Your task to perform on an android device: Toggle the flashlight Image 0: 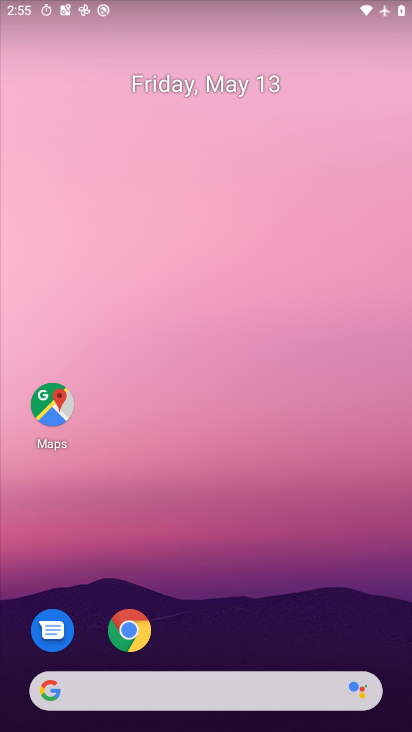
Step 0: drag from (282, 532) to (298, 255)
Your task to perform on an android device: Toggle the flashlight Image 1: 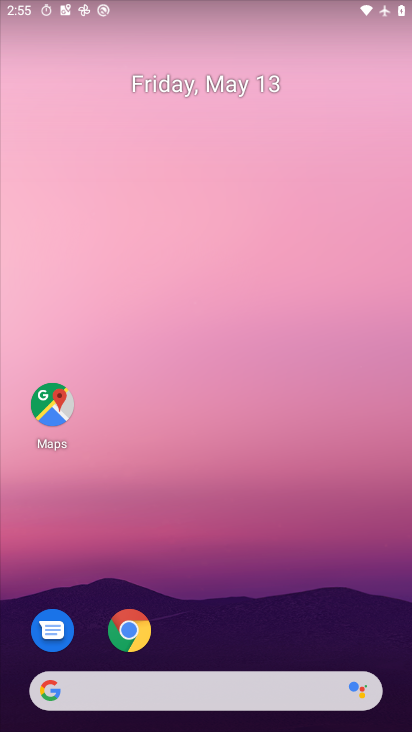
Step 1: drag from (252, 569) to (321, 116)
Your task to perform on an android device: Toggle the flashlight Image 2: 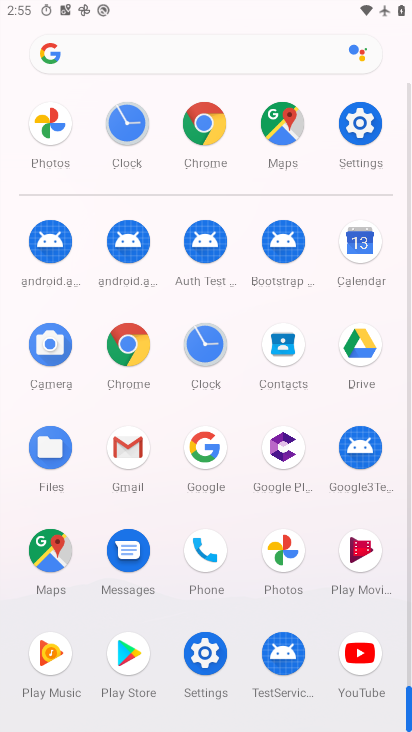
Step 2: click (354, 127)
Your task to perform on an android device: Toggle the flashlight Image 3: 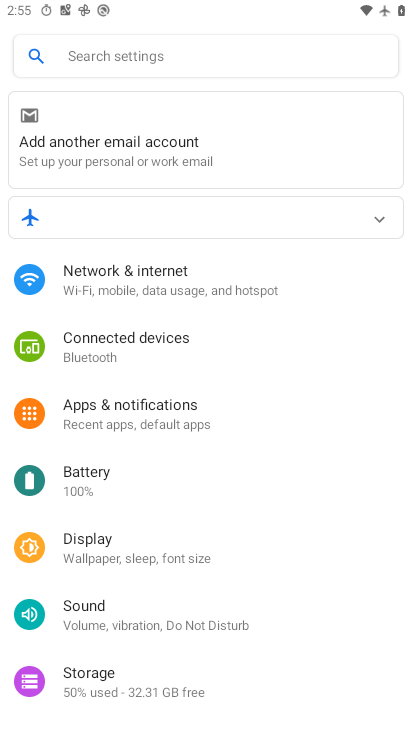
Step 3: task complete